Your task to perform on an android device: Set the phone to "Do not disturb". Image 0: 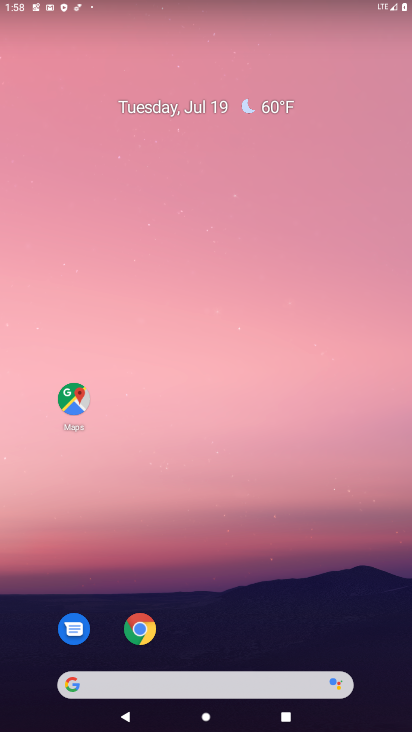
Step 0: drag from (371, 646) to (272, 257)
Your task to perform on an android device: Set the phone to "Do not disturb". Image 1: 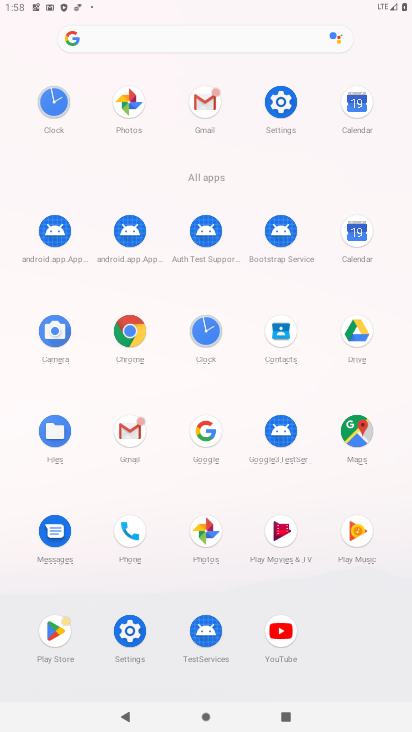
Step 1: click (131, 630)
Your task to perform on an android device: Set the phone to "Do not disturb". Image 2: 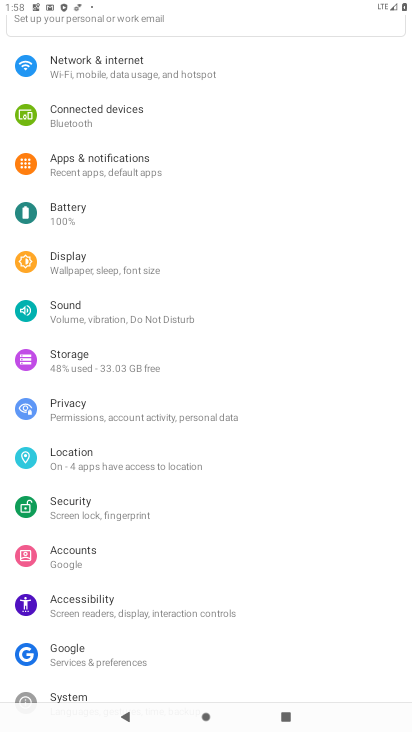
Step 2: click (90, 321)
Your task to perform on an android device: Set the phone to "Do not disturb". Image 3: 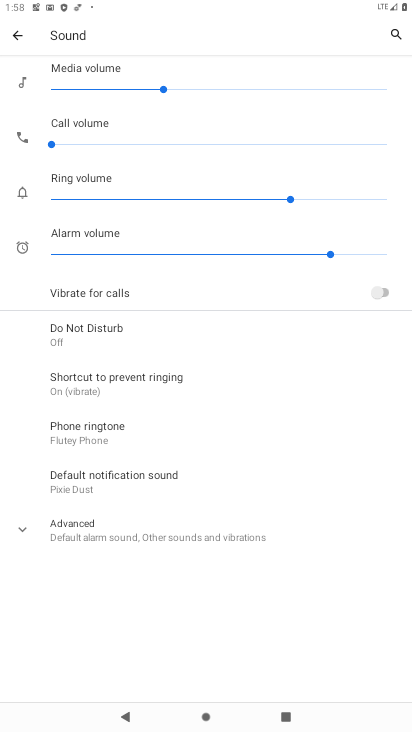
Step 3: click (78, 333)
Your task to perform on an android device: Set the phone to "Do not disturb". Image 4: 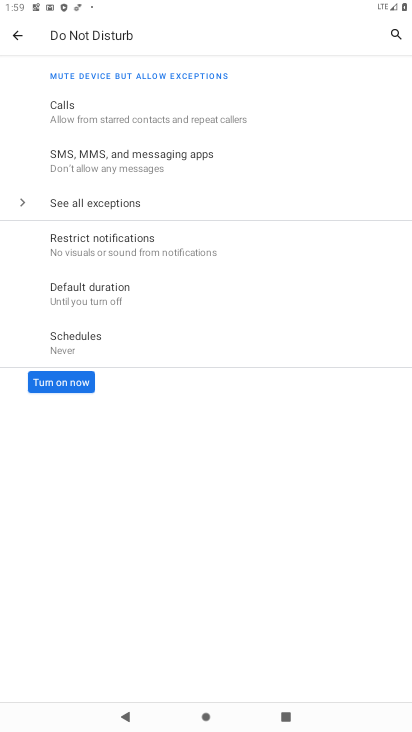
Step 4: click (65, 379)
Your task to perform on an android device: Set the phone to "Do not disturb". Image 5: 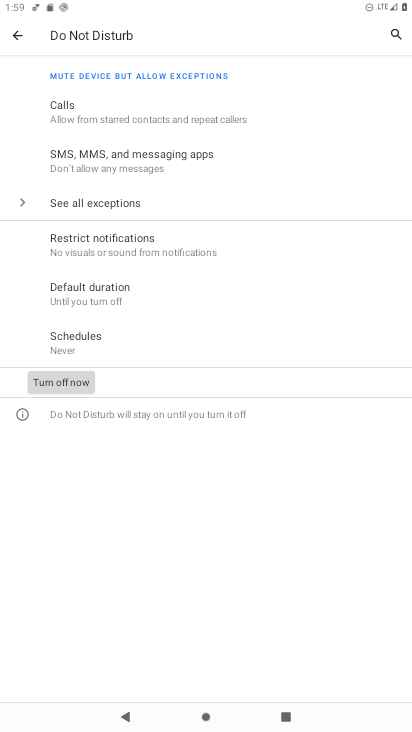
Step 5: task complete